Your task to perform on an android device: manage bookmarks in the chrome app Image 0: 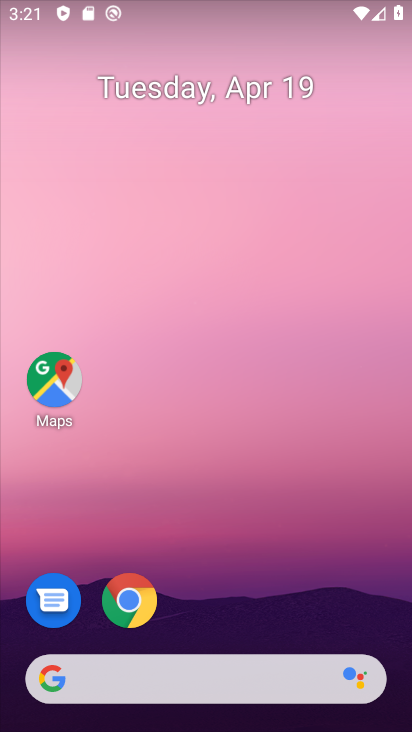
Step 0: click (137, 580)
Your task to perform on an android device: manage bookmarks in the chrome app Image 1: 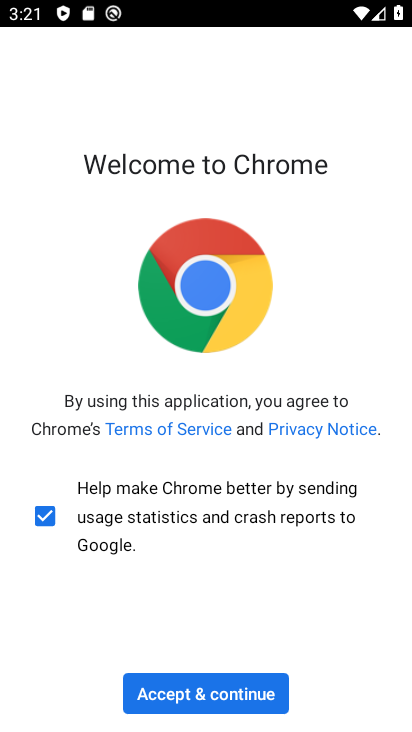
Step 1: click (218, 690)
Your task to perform on an android device: manage bookmarks in the chrome app Image 2: 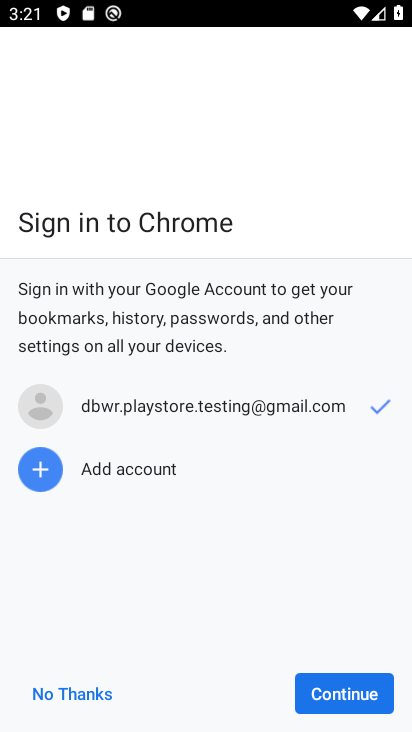
Step 2: click (328, 684)
Your task to perform on an android device: manage bookmarks in the chrome app Image 3: 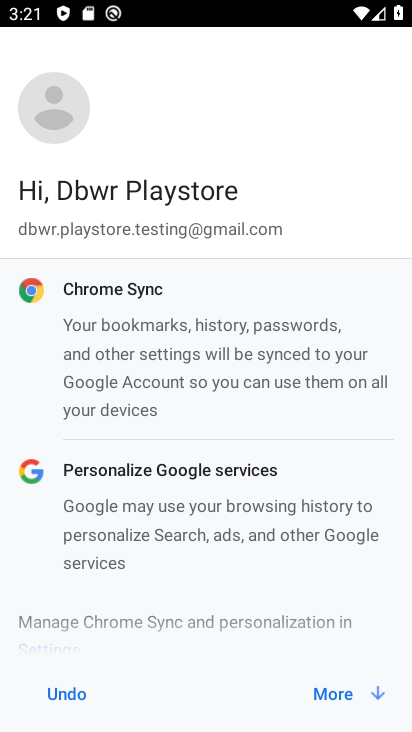
Step 3: click (330, 694)
Your task to perform on an android device: manage bookmarks in the chrome app Image 4: 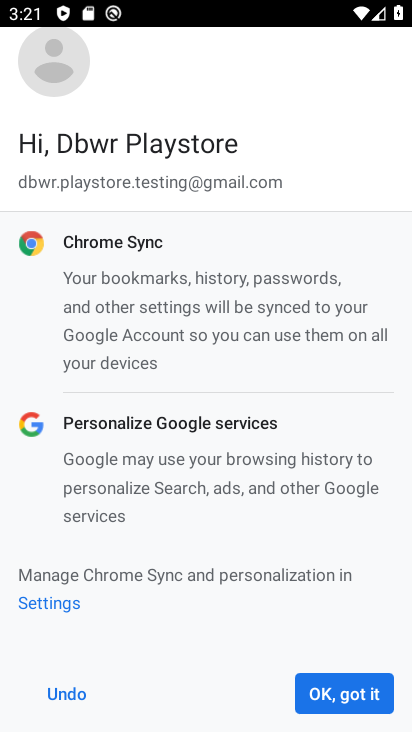
Step 4: click (325, 690)
Your task to perform on an android device: manage bookmarks in the chrome app Image 5: 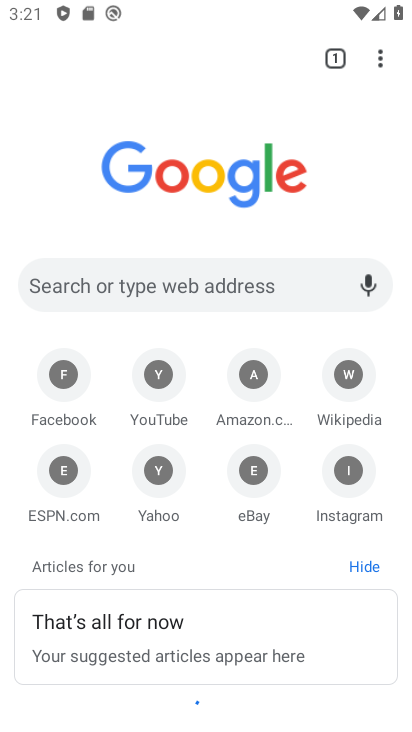
Step 5: click (376, 72)
Your task to perform on an android device: manage bookmarks in the chrome app Image 6: 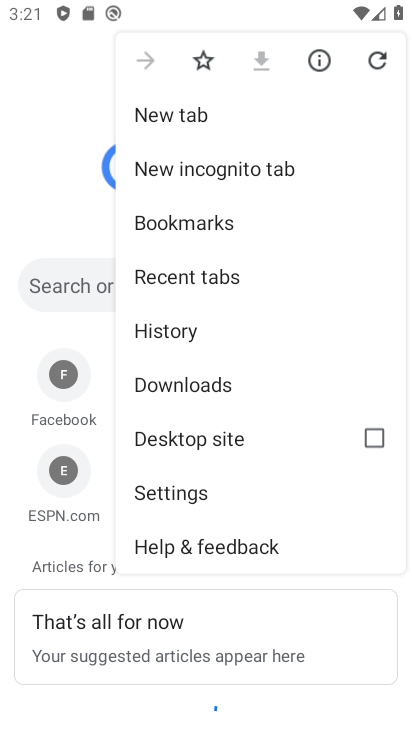
Step 6: click (206, 226)
Your task to perform on an android device: manage bookmarks in the chrome app Image 7: 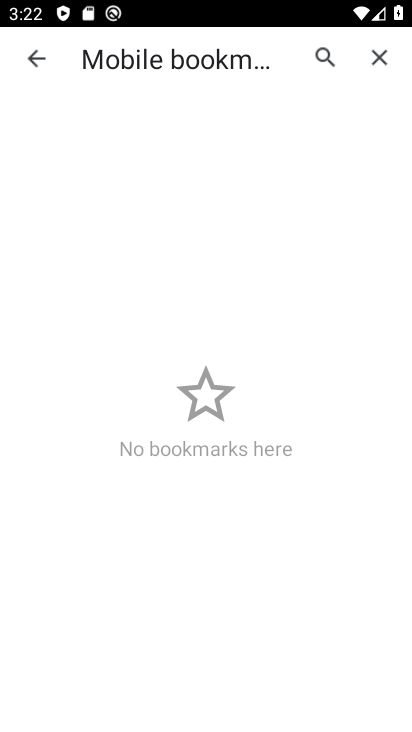
Step 7: task complete